Your task to perform on an android device: turn off data saver in the chrome app Image 0: 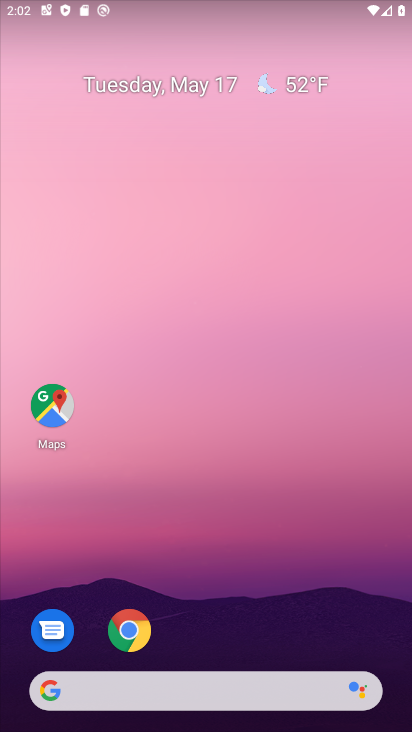
Step 0: click (126, 620)
Your task to perform on an android device: turn off data saver in the chrome app Image 1: 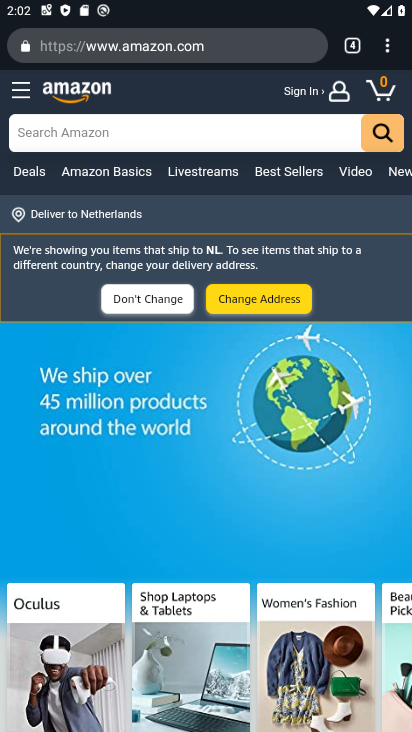
Step 1: click (386, 52)
Your task to perform on an android device: turn off data saver in the chrome app Image 2: 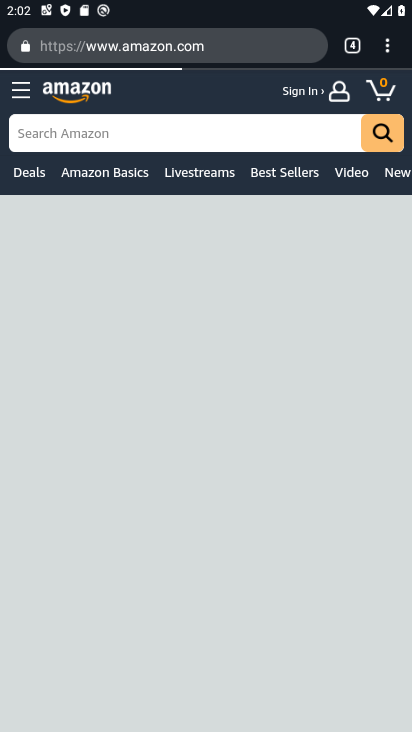
Step 2: drag from (394, 52) to (245, 558)
Your task to perform on an android device: turn off data saver in the chrome app Image 3: 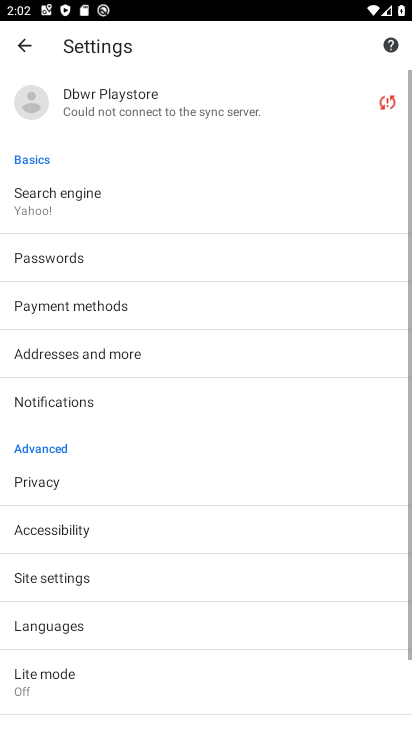
Step 3: drag from (191, 660) to (261, 415)
Your task to perform on an android device: turn off data saver in the chrome app Image 4: 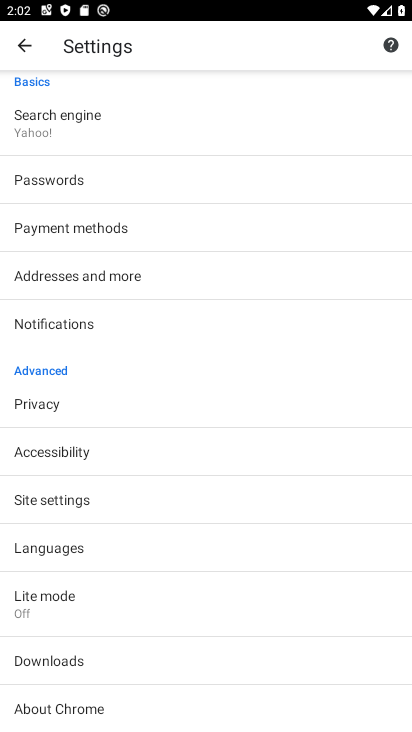
Step 4: click (47, 611)
Your task to perform on an android device: turn off data saver in the chrome app Image 5: 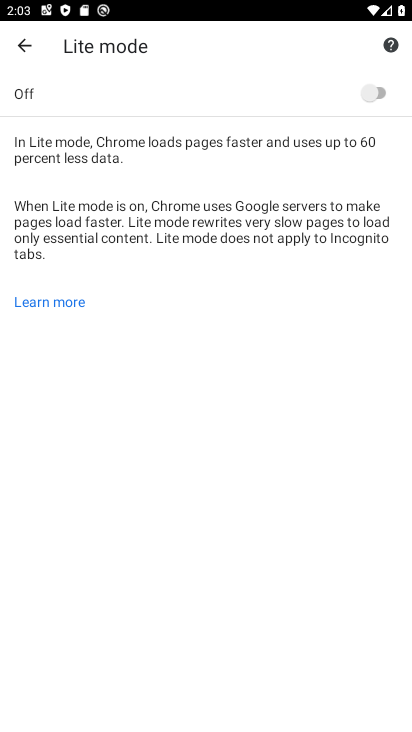
Step 5: task complete